Your task to perform on an android device: turn on priority inbox in the gmail app Image 0: 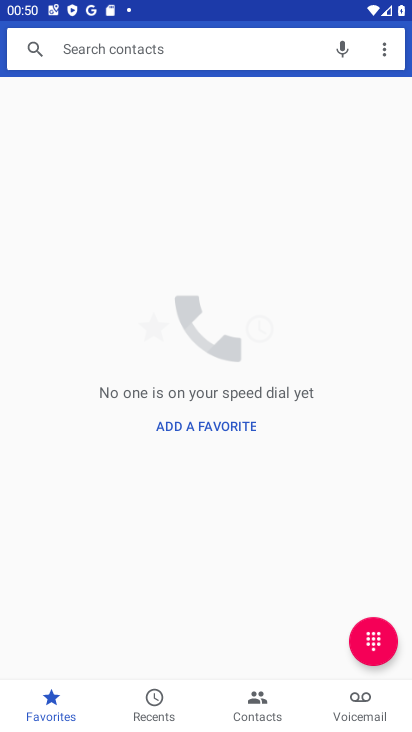
Step 0: press home button
Your task to perform on an android device: turn on priority inbox in the gmail app Image 1: 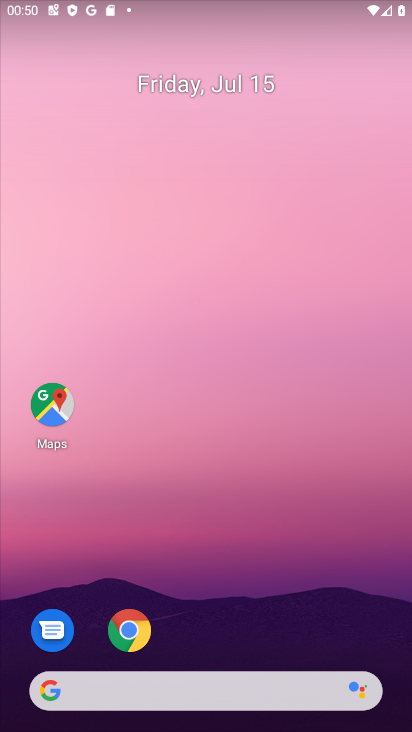
Step 1: press home button
Your task to perform on an android device: turn on priority inbox in the gmail app Image 2: 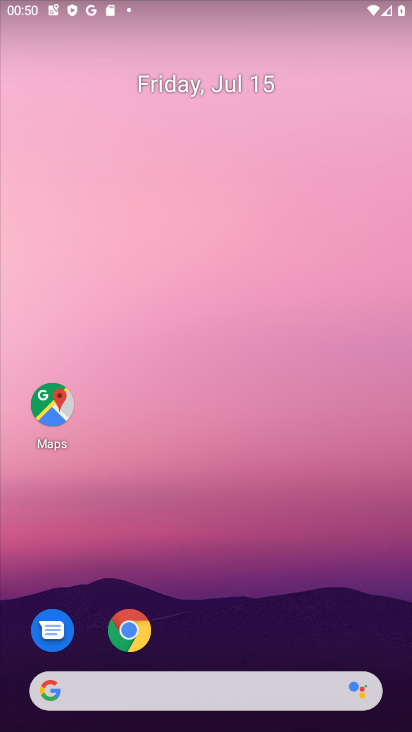
Step 2: drag from (227, 647) to (231, 126)
Your task to perform on an android device: turn on priority inbox in the gmail app Image 3: 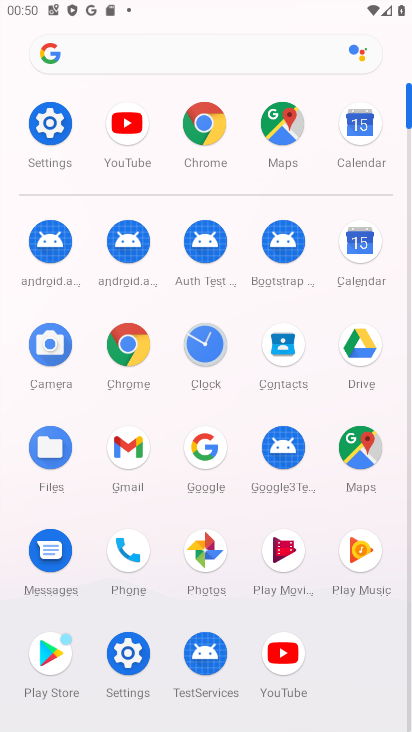
Step 3: click (142, 447)
Your task to perform on an android device: turn on priority inbox in the gmail app Image 4: 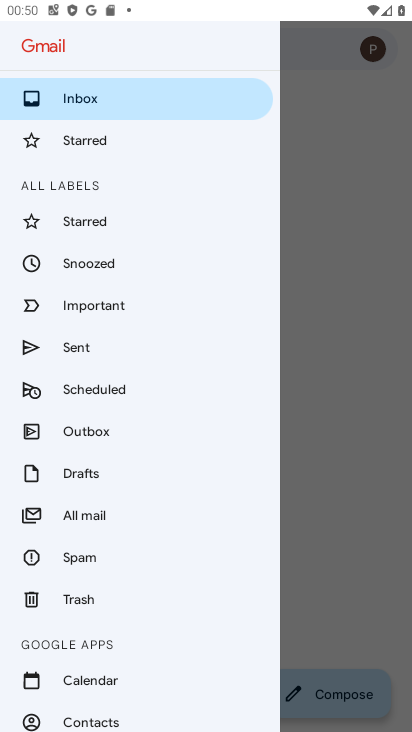
Step 4: drag from (86, 692) to (99, 274)
Your task to perform on an android device: turn on priority inbox in the gmail app Image 5: 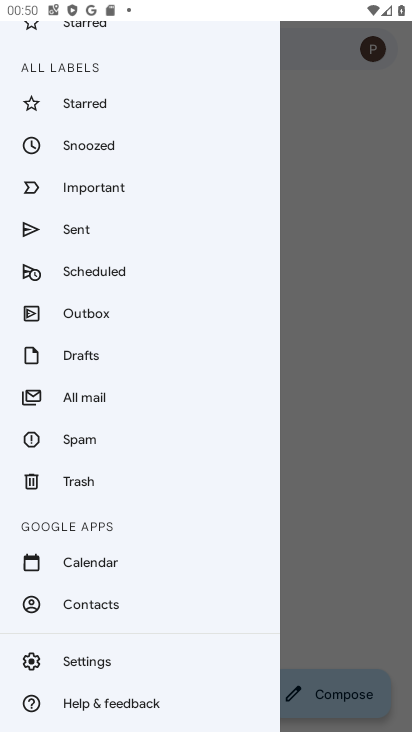
Step 5: click (123, 656)
Your task to perform on an android device: turn on priority inbox in the gmail app Image 6: 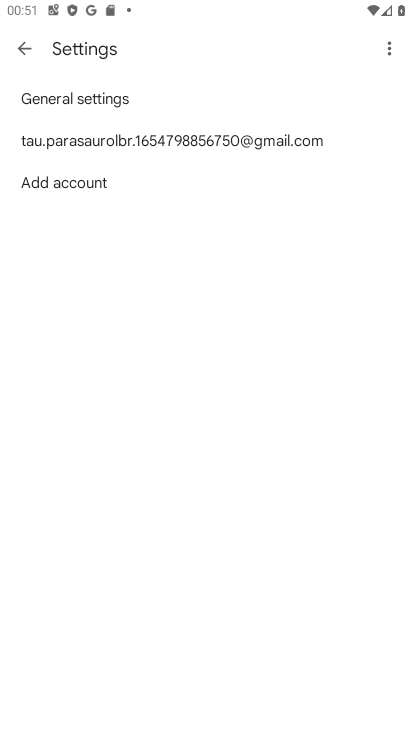
Step 6: click (124, 151)
Your task to perform on an android device: turn on priority inbox in the gmail app Image 7: 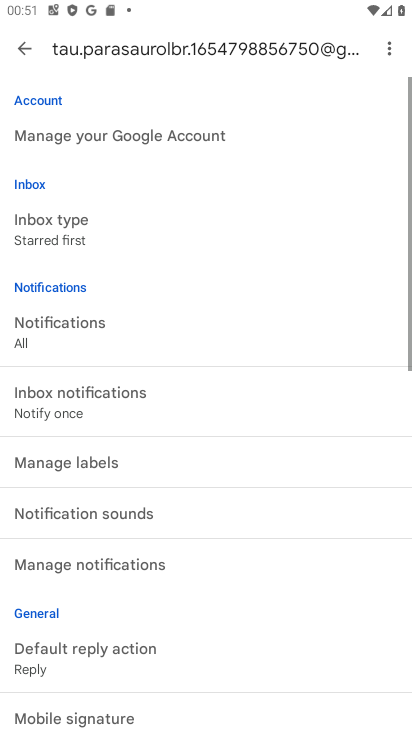
Step 7: task complete